Your task to perform on an android device: turn on the 24-hour format for clock Image 0: 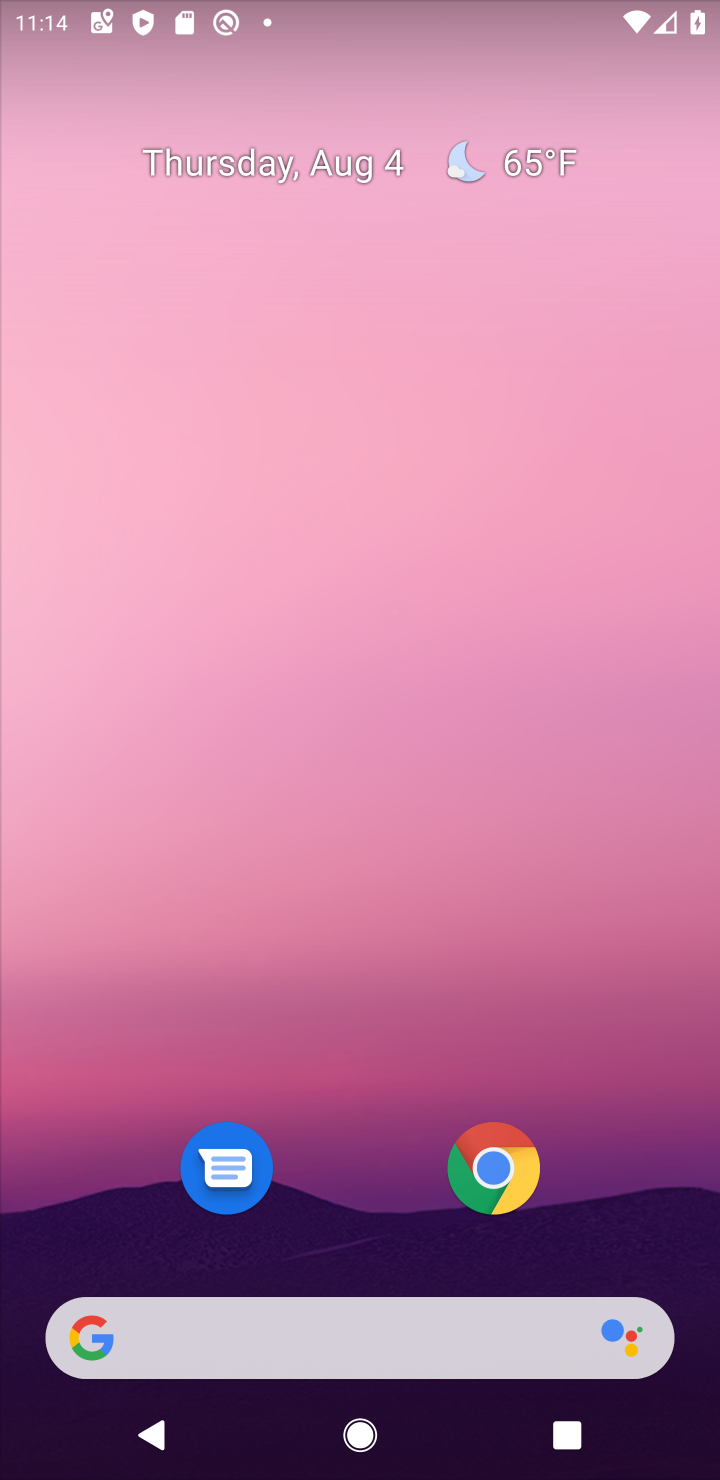
Step 0: drag from (672, 1264) to (339, 27)
Your task to perform on an android device: turn on the 24-hour format for clock Image 1: 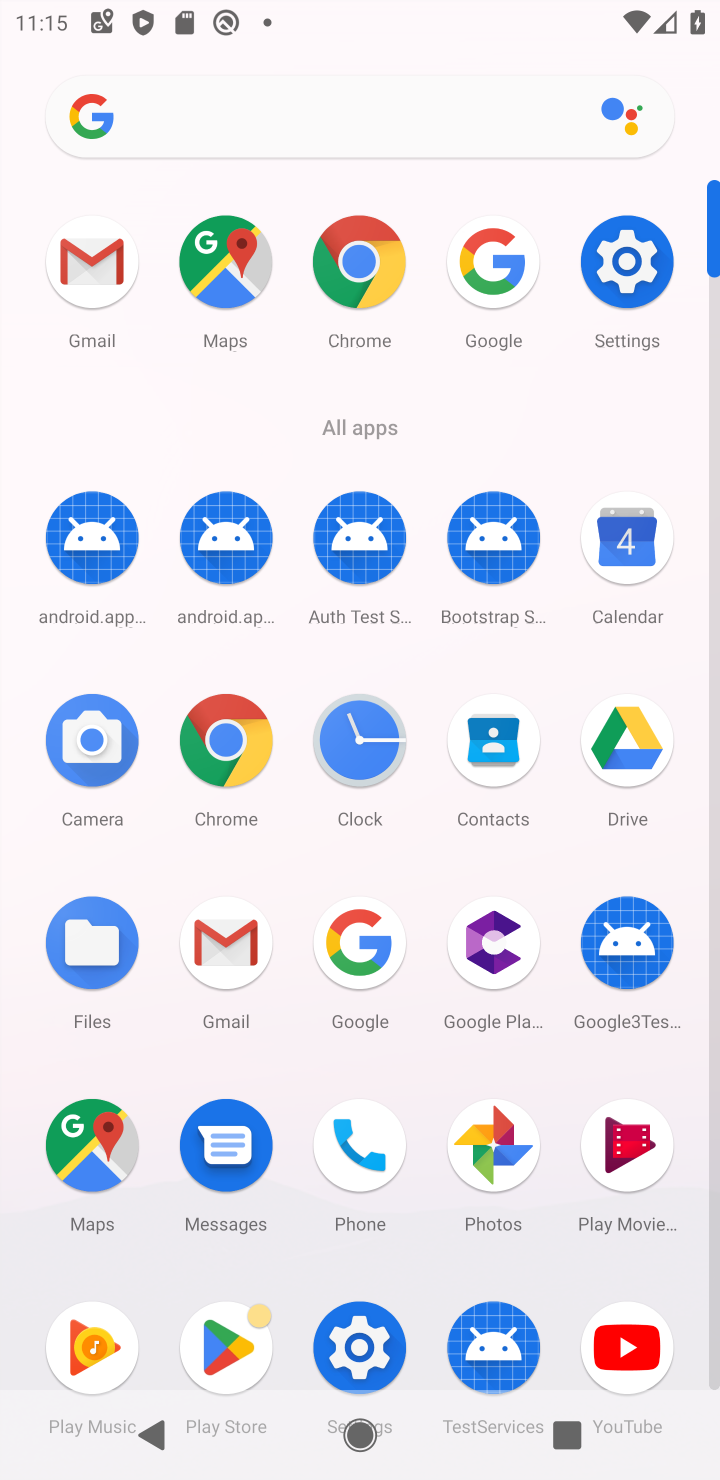
Step 1: click (343, 777)
Your task to perform on an android device: turn on the 24-hour format for clock Image 2: 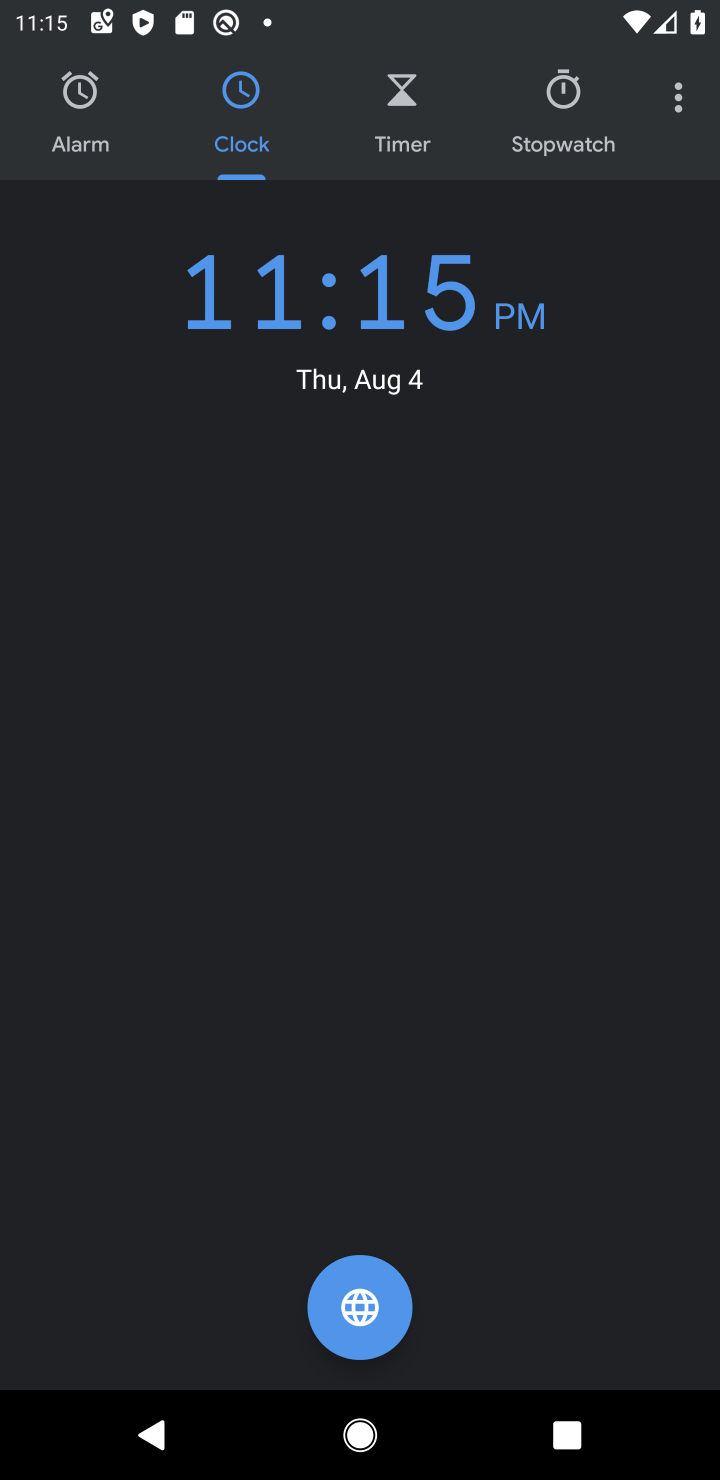
Step 2: click (669, 88)
Your task to perform on an android device: turn on the 24-hour format for clock Image 3: 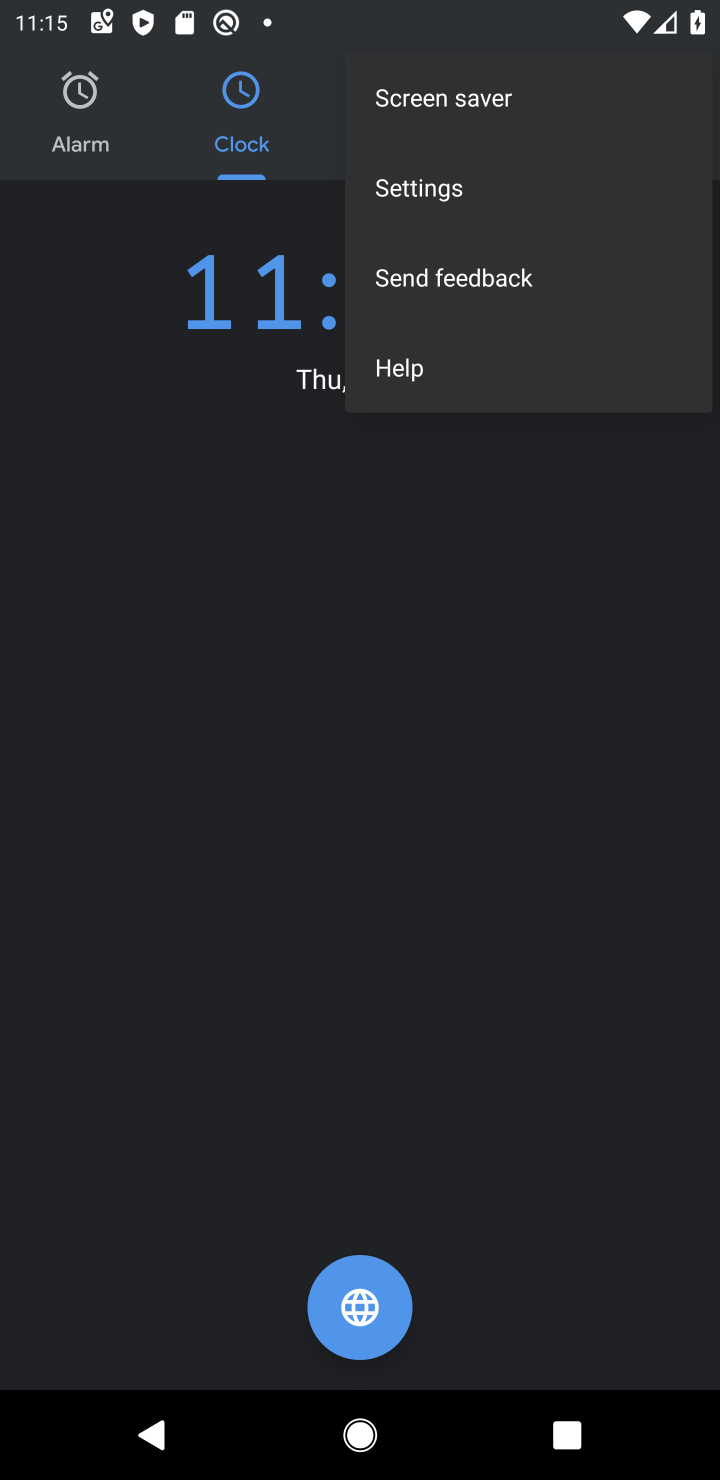
Step 3: click (398, 197)
Your task to perform on an android device: turn on the 24-hour format for clock Image 4: 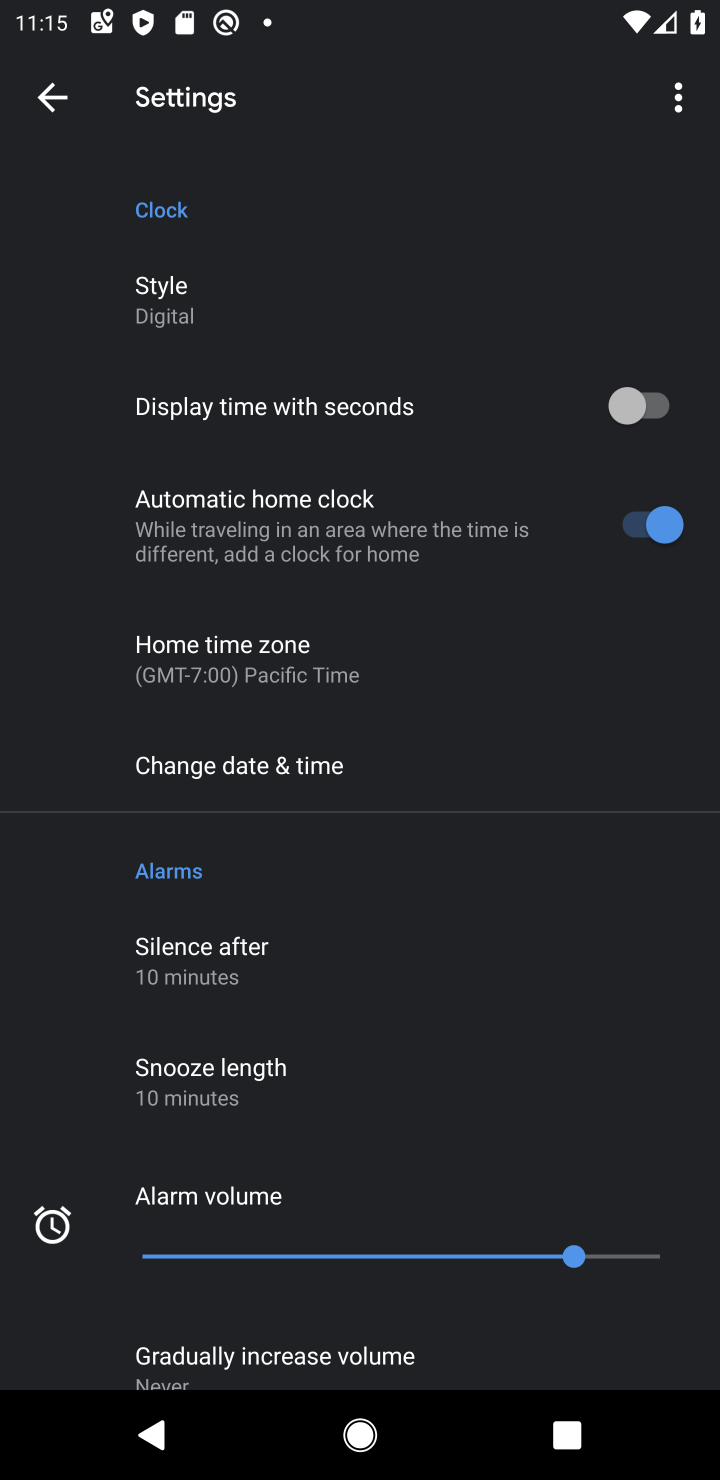
Step 4: click (251, 771)
Your task to perform on an android device: turn on the 24-hour format for clock Image 5: 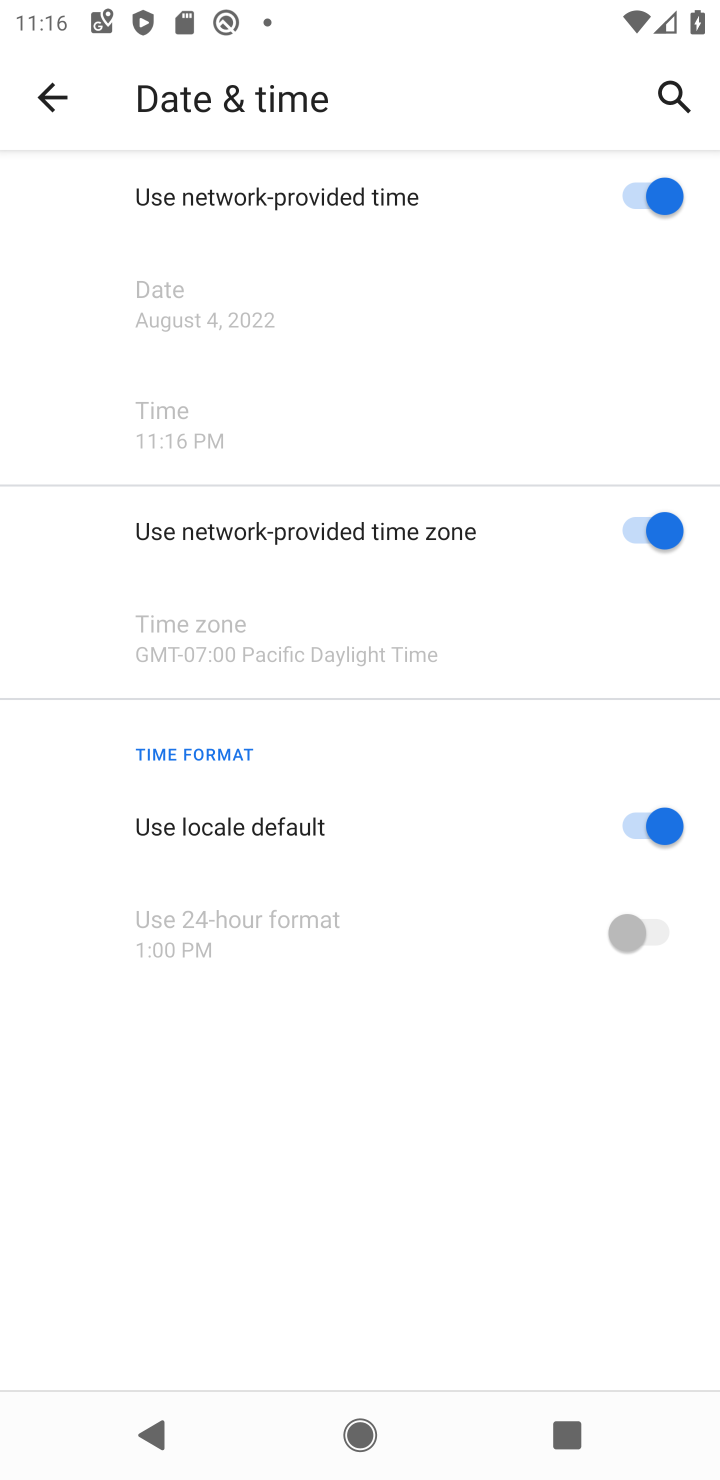
Step 5: task complete